Your task to perform on an android device: turn off notifications settings in the gmail app Image 0: 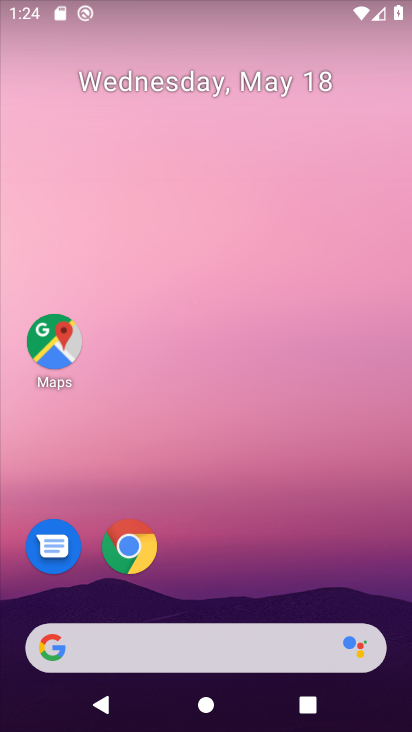
Step 0: drag from (179, 582) to (205, 143)
Your task to perform on an android device: turn off notifications settings in the gmail app Image 1: 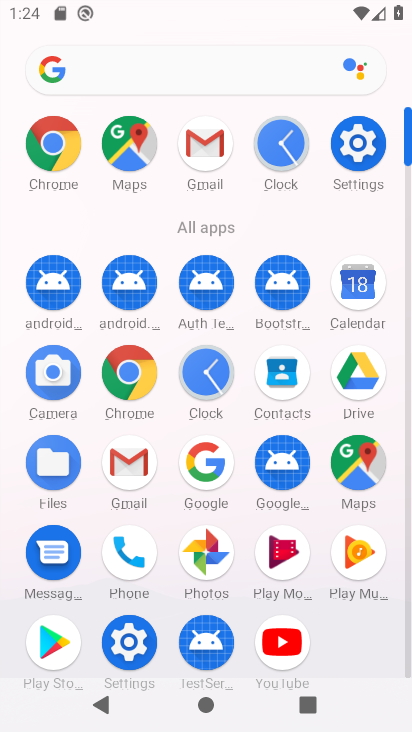
Step 1: click (212, 148)
Your task to perform on an android device: turn off notifications settings in the gmail app Image 2: 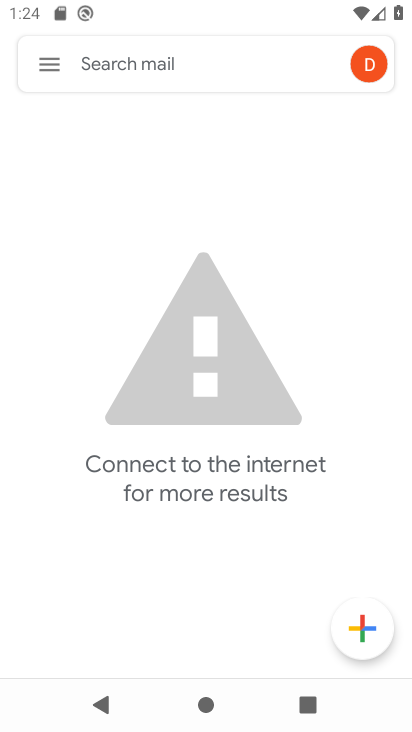
Step 2: click (52, 61)
Your task to perform on an android device: turn off notifications settings in the gmail app Image 3: 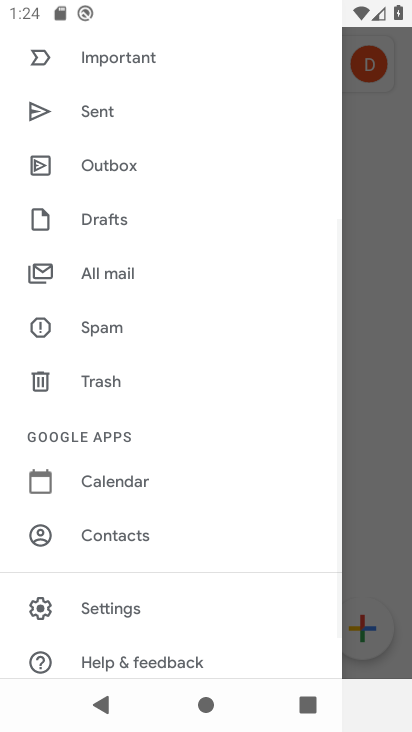
Step 3: click (115, 604)
Your task to perform on an android device: turn off notifications settings in the gmail app Image 4: 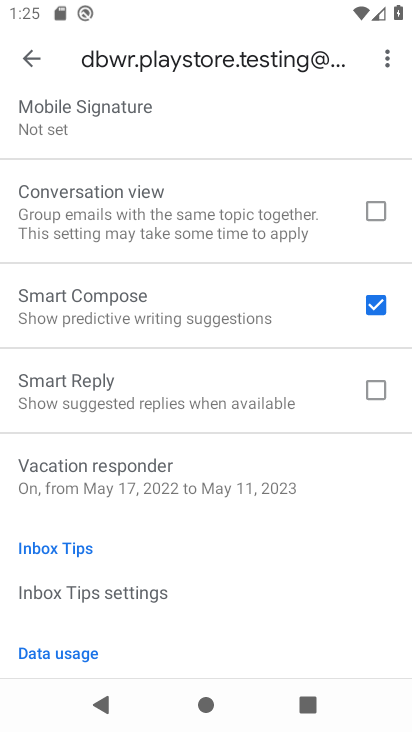
Step 4: drag from (195, 143) to (193, 583)
Your task to perform on an android device: turn off notifications settings in the gmail app Image 5: 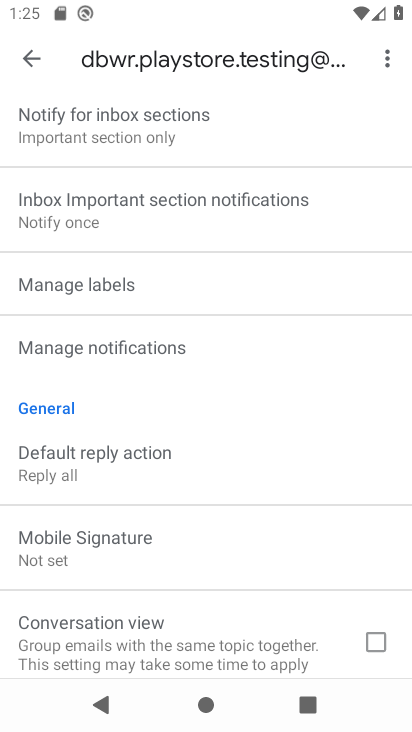
Step 5: drag from (164, 178) to (157, 552)
Your task to perform on an android device: turn off notifications settings in the gmail app Image 6: 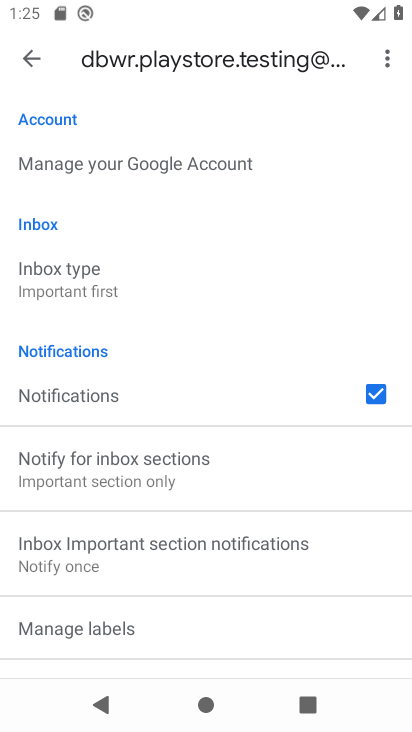
Step 6: drag from (106, 613) to (123, 361)
Your task to perform on an android device: turn off notifications settings in the gmail app Image 7: 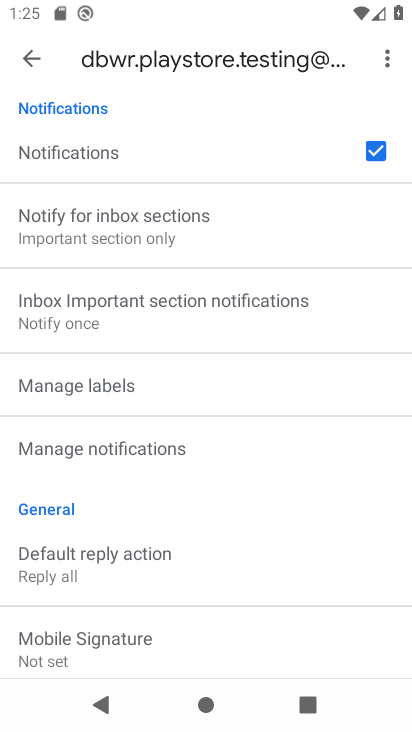
Step 7: click (79, 443)
Your task to perform on an android device: turn off notifications settings in the gmail app Image 8: 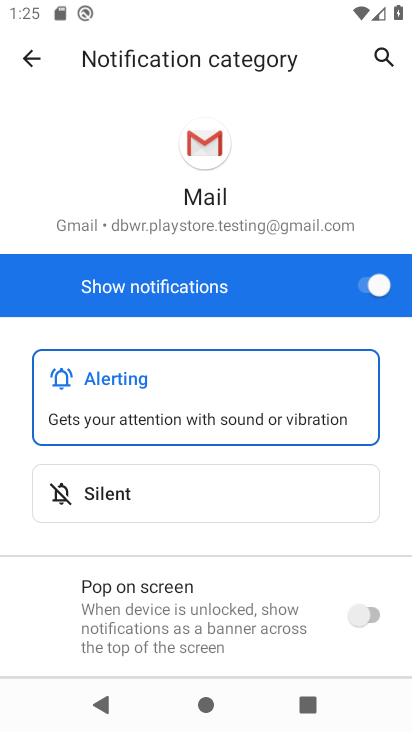
Step 8: click (368, 292)
Your task to perform on an android device: turn off notifications settings in the gmail app Image 9: 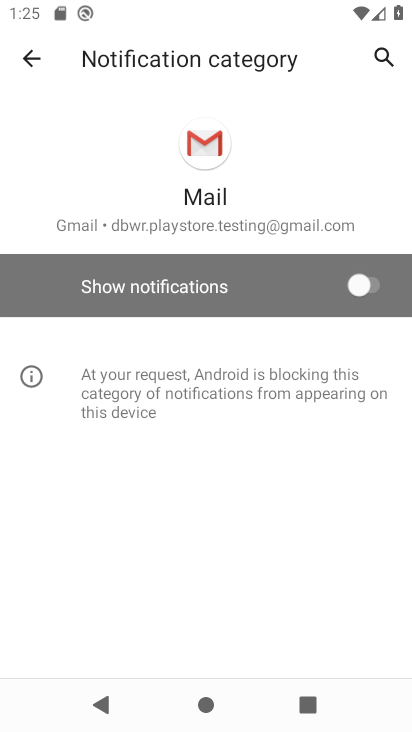
Step 9: task complete